Your task to perform on an android device: Go to CNN.com Image 0: 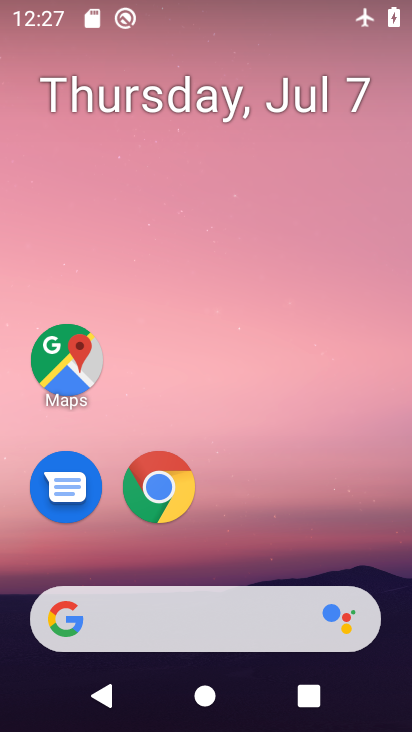
Step 0: drag from (349, 502) to (330, 152)
Your task to perform on an android device: Go to CNN.com Image 1: 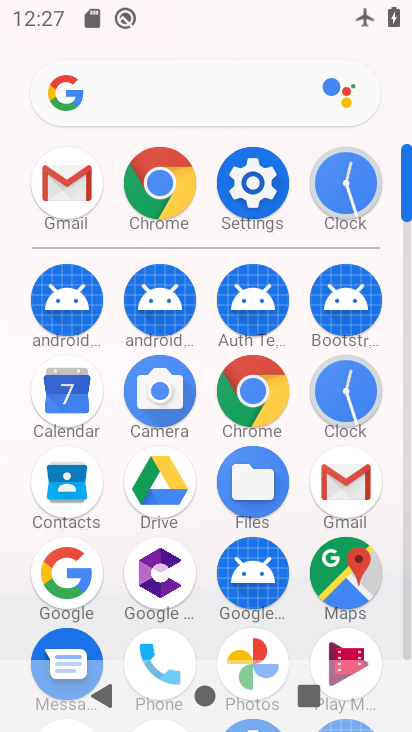
Step 1: click (248, 406)
Your task to perform on an android device: Go to CNN.com Image 2: 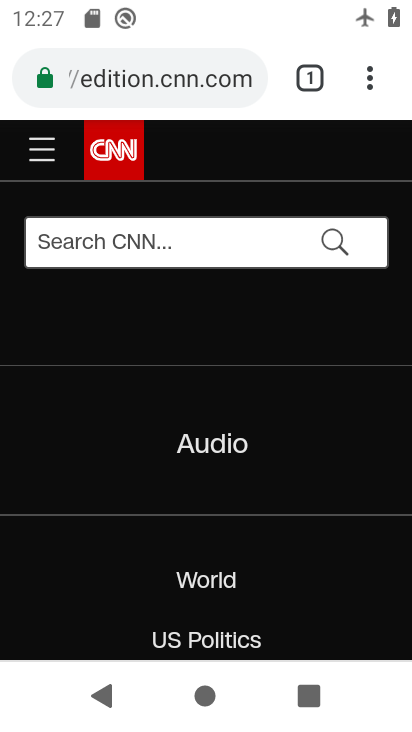
Step 2: click (211, 73)
Your task to perform on an android device: Go to CNN.com Image 3: 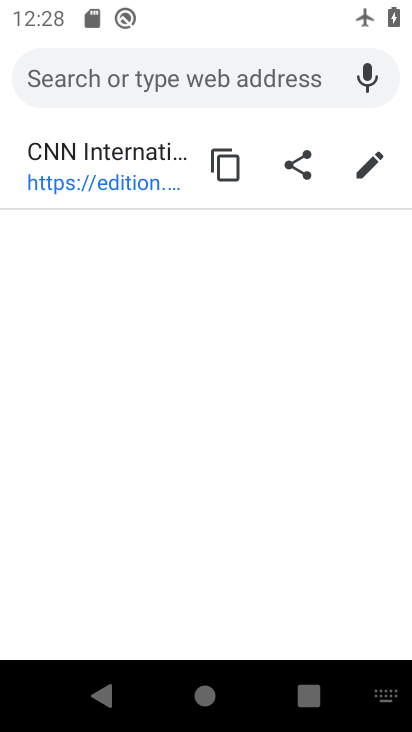
Step 3: type "cnn.com"
Your task to perform on an android device: Go to CNN.com Image 4: 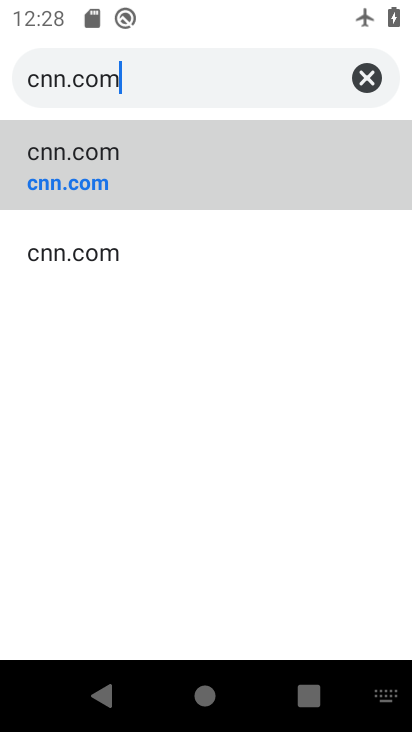
Step 4: click (185, 187)
Your task to perform on an android device: Go to CNN.com Image 5: 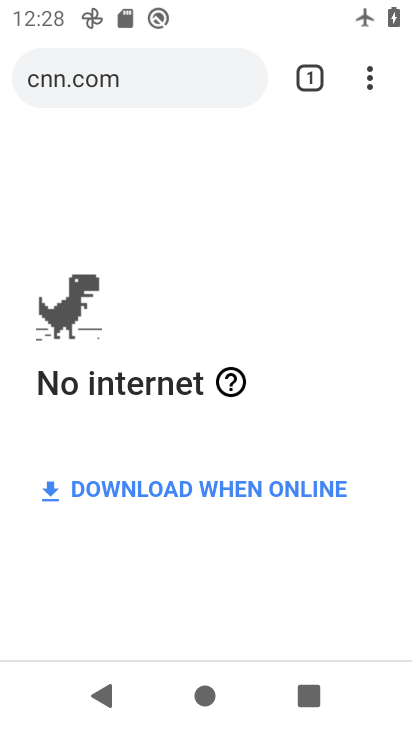
Step 5: task complete